Your task to perform on an android device: Open Reddit.com Image 0: 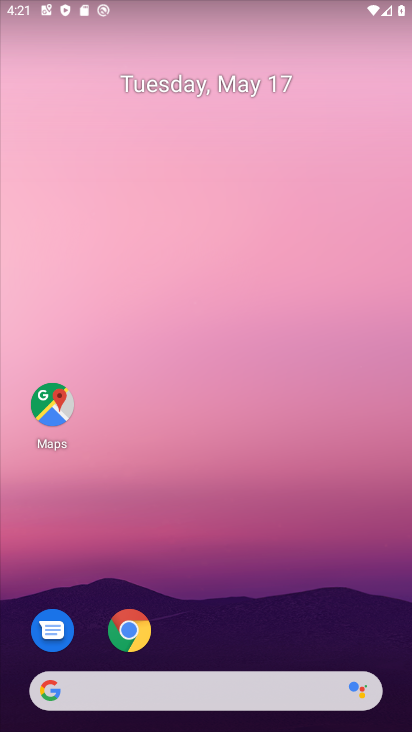
Step 0: click (130, 632)
Your task to perform on an android device: Open Reddit.com Image 1: 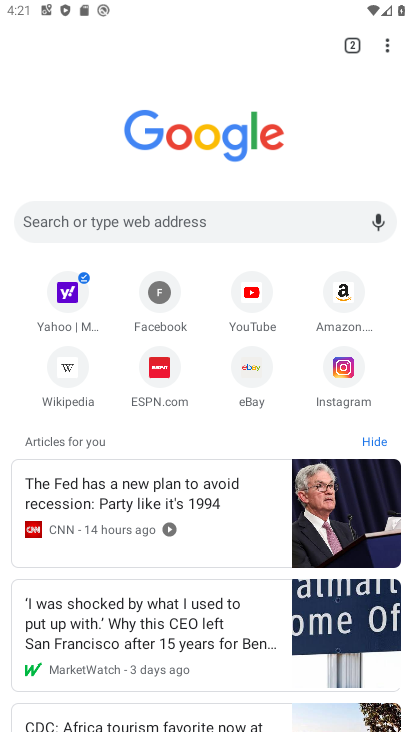
Step 1: click (192, 222)
Your task to perform on an android device: Open Reddit.com Image 2: 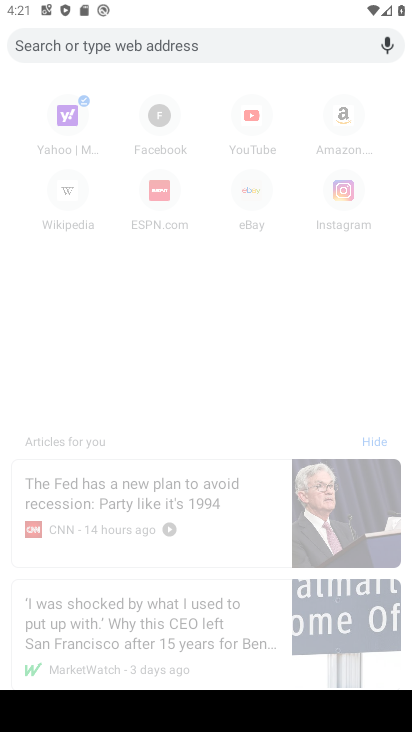
Step 2: type "Reddit.com"
Your task to perform on an android device: Open Reddit.com Image 3: 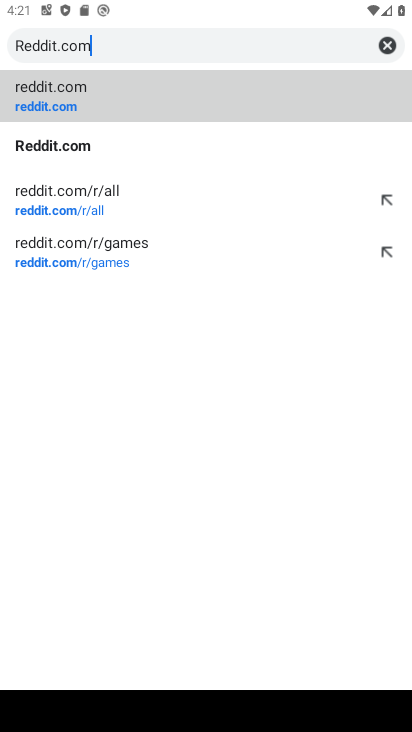
Step 3: click (66, 92)
Your task to perform on an android device: Open Reddit.com Image 4: 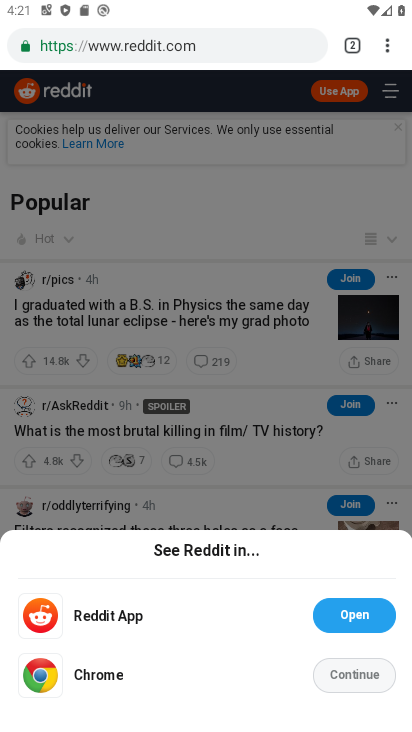
Step 4: task complete